Your task to perform on an android device: Go to Google Image 0: 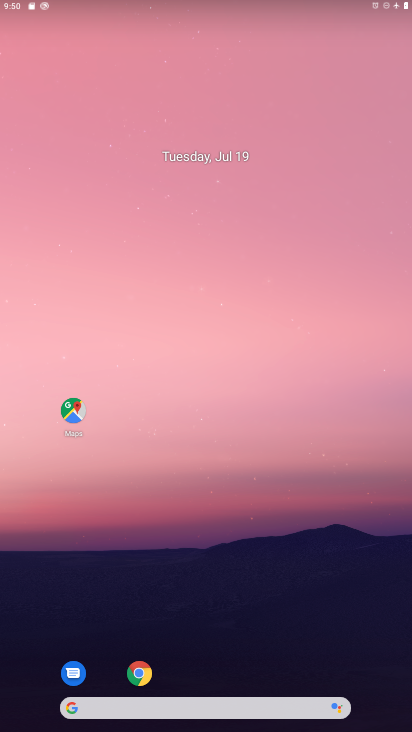
Step 0: drag from (372, 679) to (319, 194)
Your task to perform on an android device: Go to Google Image 1: 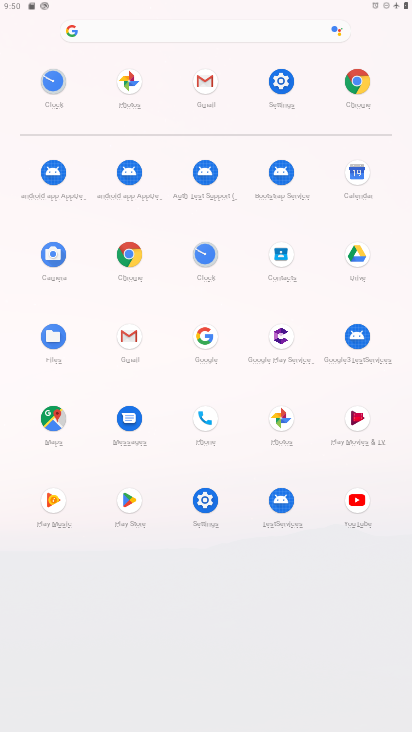
Step 1: click (126, 252)
Your task to perform on an android device: Go to Google Image 2: 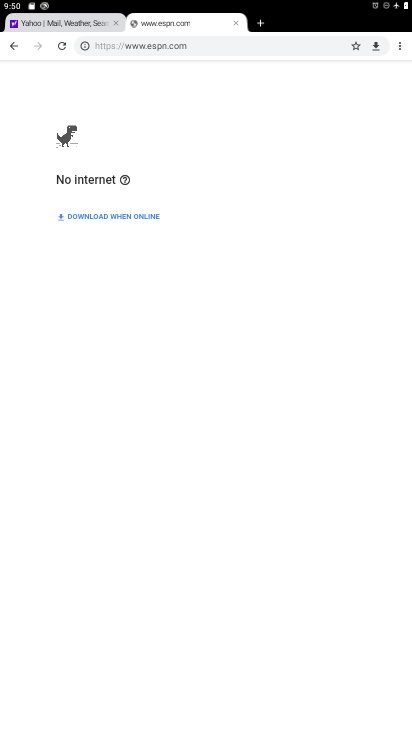
Step 2: task complete